Your task to perform on an android device: Search for good BBQ restaurants Image 0: 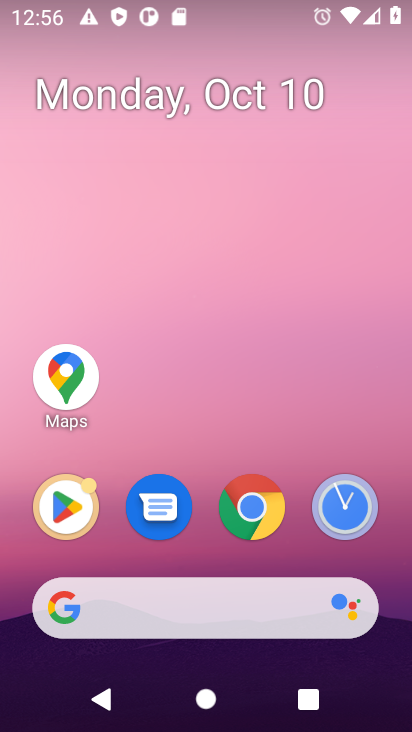
Step 0: press home button
Your task to perform on an android device: Search for good BBQ restaurants Image 1: 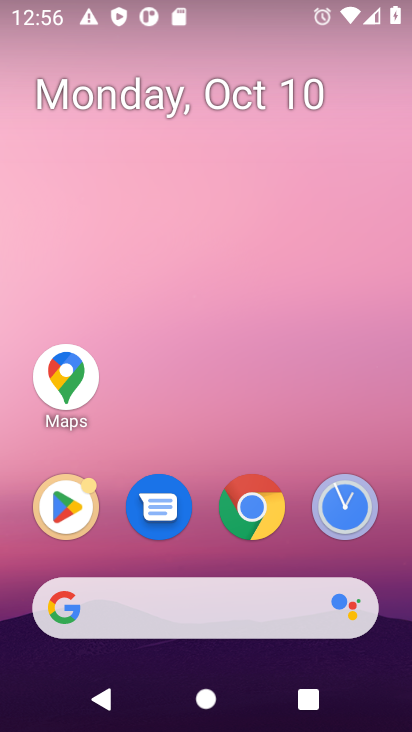
Step 1: click (255, 615)
Your task to perform on an android device: Search for good BBQ restaurants Image 2: 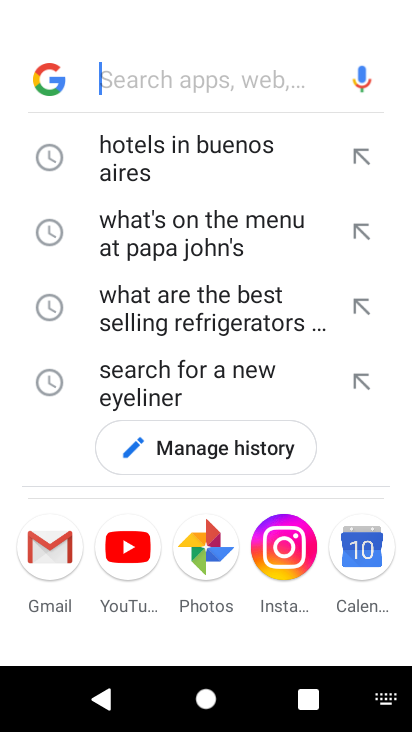
Step 2: type " good BBQ restaurants"
Your task to perform on an android device: Search for good BBQ restaurants Image 3: 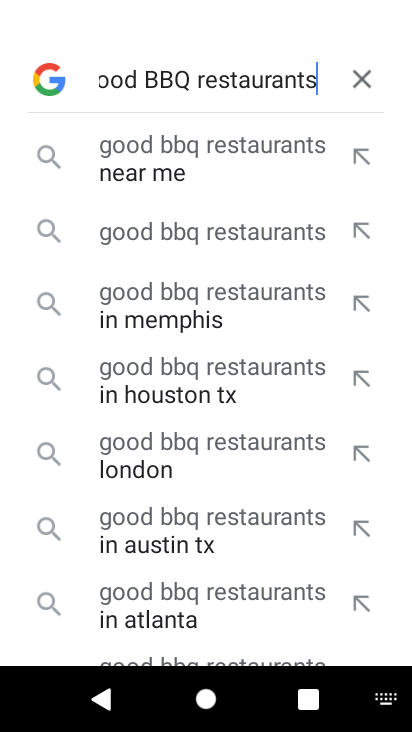
Step 3: press enter
Your task to perform on an android device: Search for good BBQ restaurants Image 4: 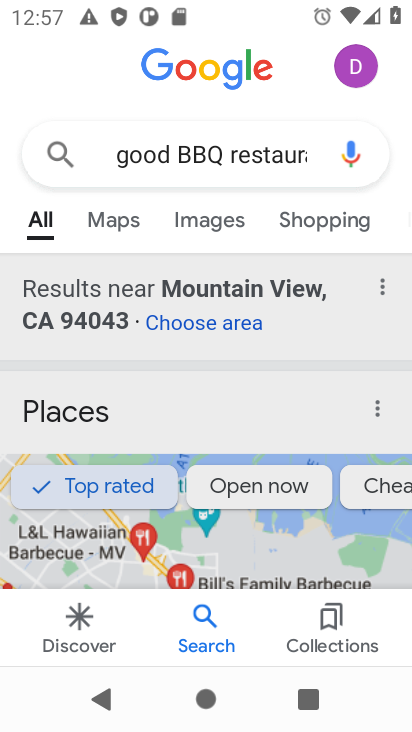
Step 4: drag from (282, 490) to (292, 379)
Your task to perform on an android device: Search for good BBQ restaurants Image 5: 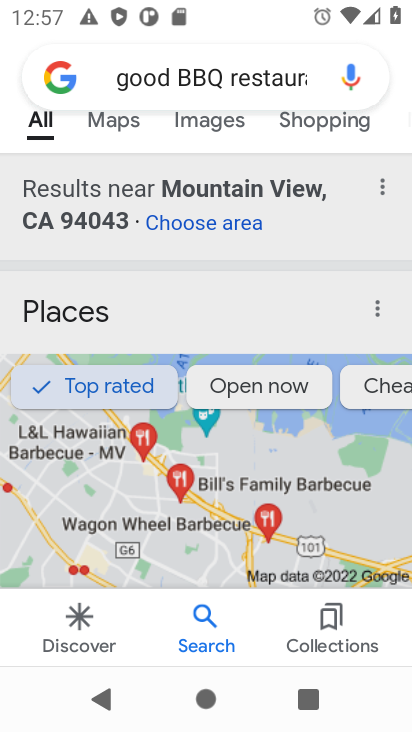
Step 5: drag from (271, 499) to (277, 337)
Your task to perform on an android device: Search for good BBQ restaurants Image 6: 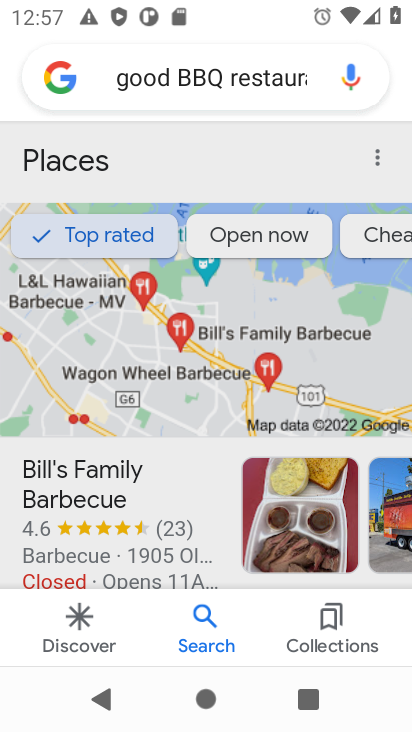
Step 6: drag from (222, 509) to (233, 322)
Your task to perform on an android device: Search for good BBQ restaurants Image 7: 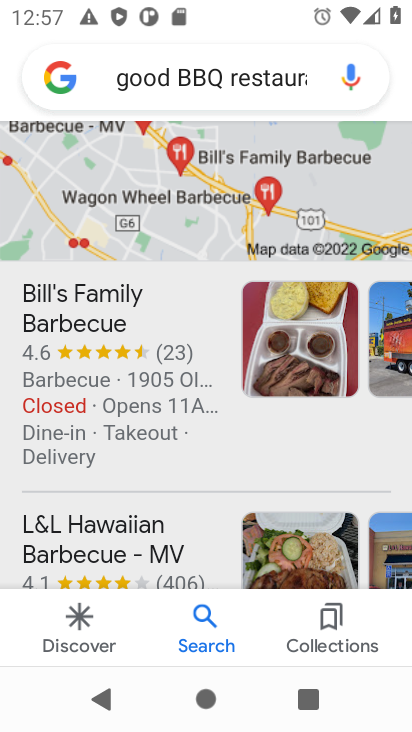
Step 7: drag from (208, 501) to (201, 347)
Your task to perform on an android device: Search for good BBQ restaurants Image 8: 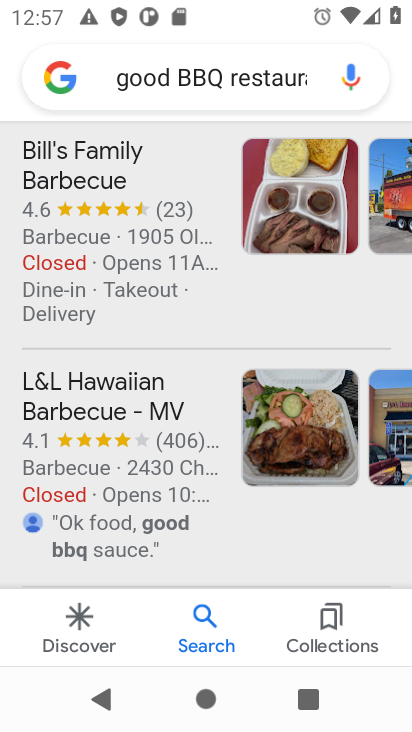
Step 8: drag from (180, 567) to (193, 401)
Your task to perform on an android device: Search for good BBQ restaurants Image 9: 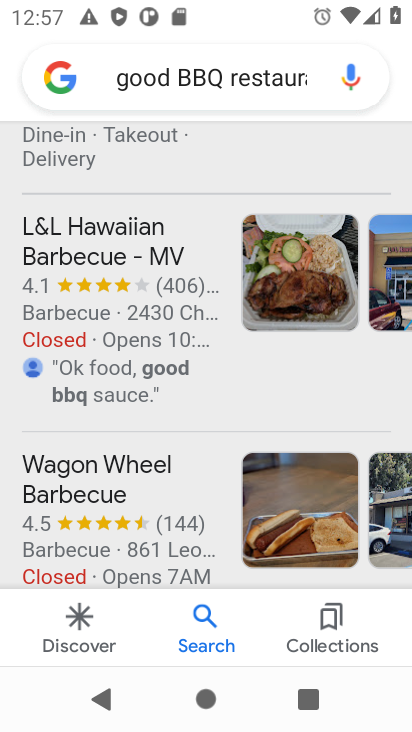
Step 9: drag from (172, 557) to (171, 394)
Your task to perform on an android device: Search for good BBQ restaurants Image 10: 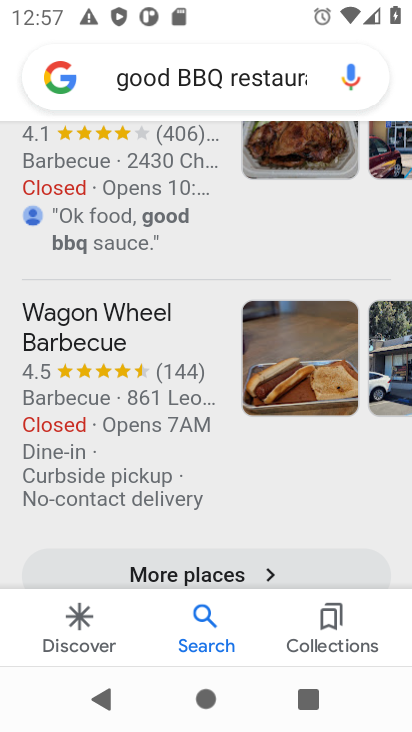
Step 10: drag from (164, 501) to (151, 252)
Your task to perform on an android device: Search for good BBQ restaurants Image 11: 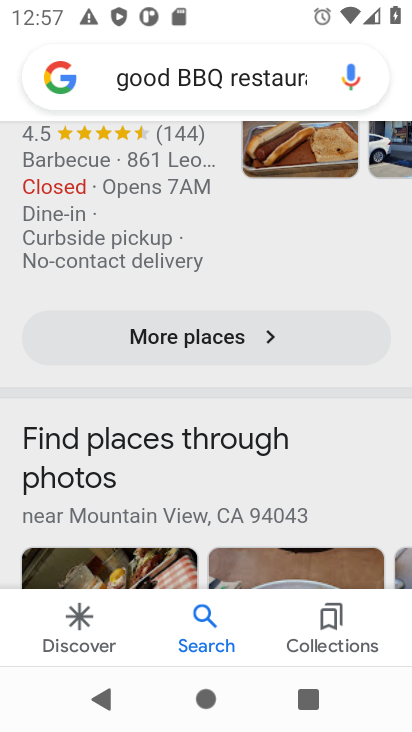
Step 11: click (169, 331)
Your task to perform on an android device: Search for good BBQ restaurants Image 12: 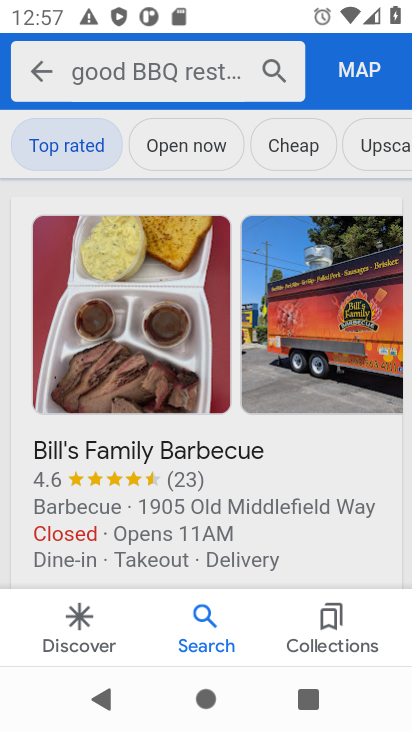
Step 12: task complete